Your task to perform on an android device: Check the news Image 0: 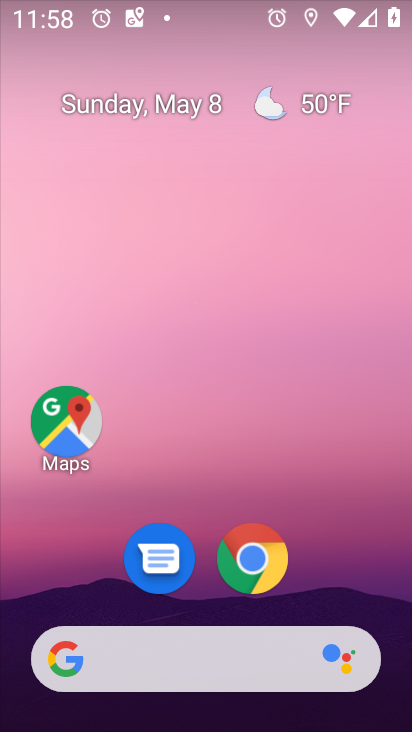
Step 0: click (75, 441)
Your task to perform on an android device: Check the news Image 1: 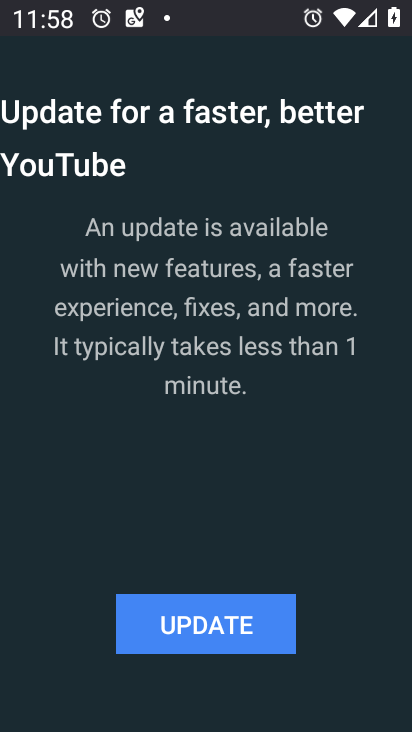
Step 1: task complete